Your task to perform on an android device: See recent photos Image 0: 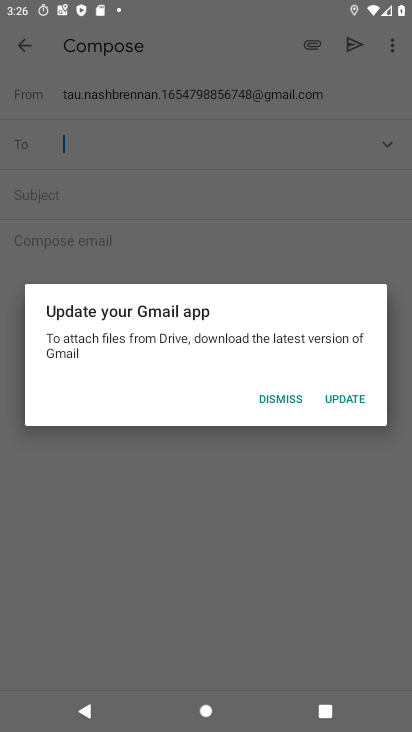
Step 0: press home button
Your task to perform on an android device: See recent photos Image 1: 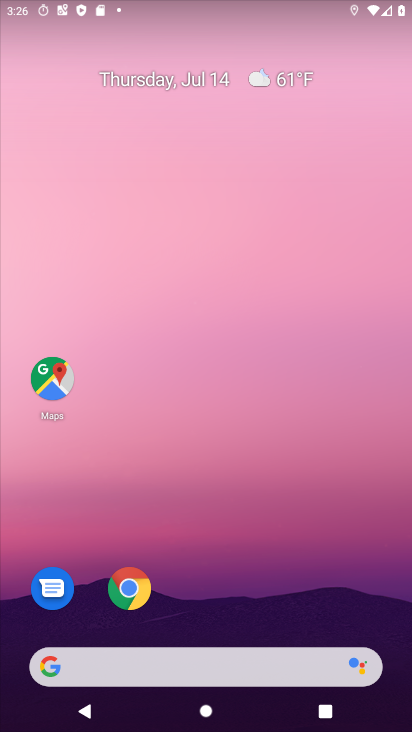
Step 1: drag from (180, 670) to (211, 188)
Your task to perform on an android device: See recent photos Image 2: 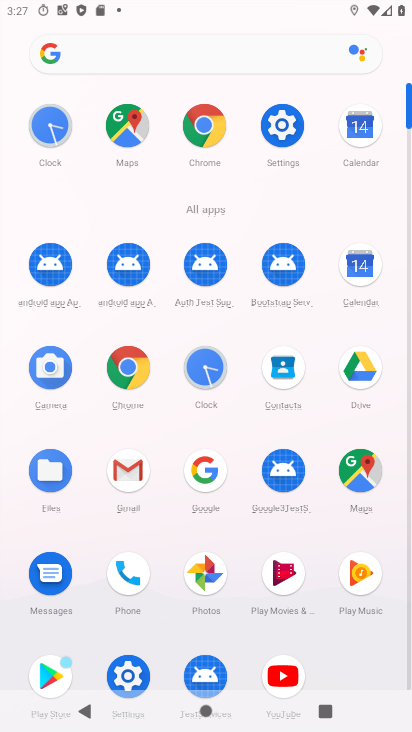
Step 2: click (204, 576)
Your task to perform on an android device: See recent photos Image 3: 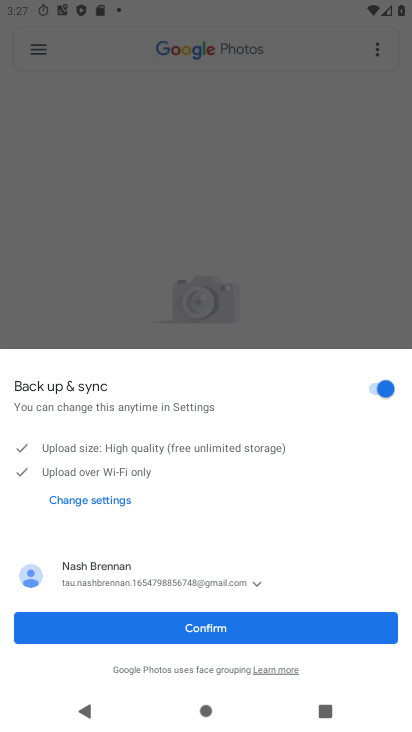
Step 3: click (203, 621)
Your task to perform on an android device: See recent photos Image 4: 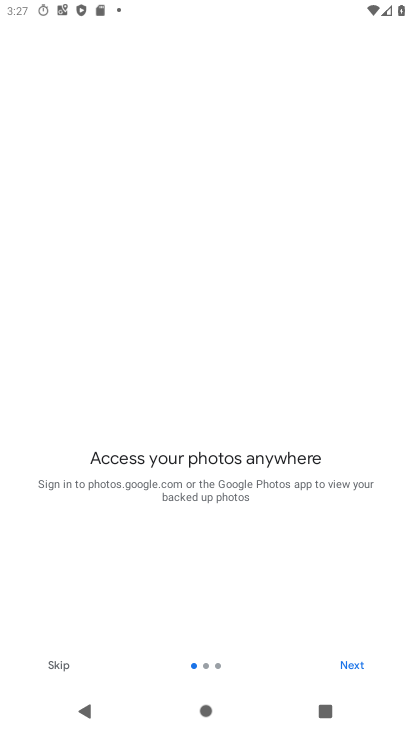
Step 4: click (341, 662)
Your task to perform on an android device: See recent photos Image 5: 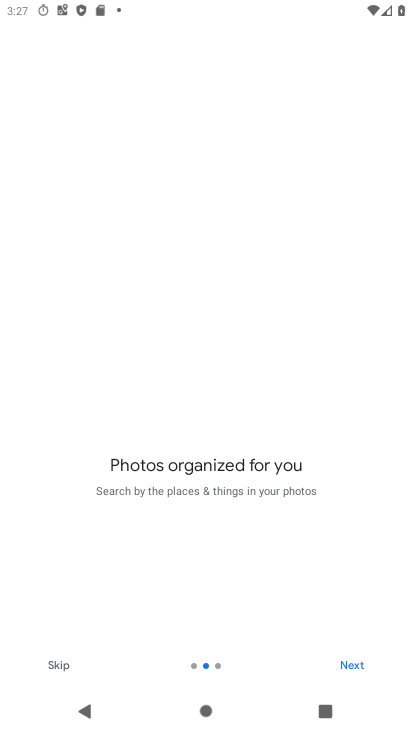
Step 5: click (354, 661)
Your task to perform on an android device: See recent photos Image 6: 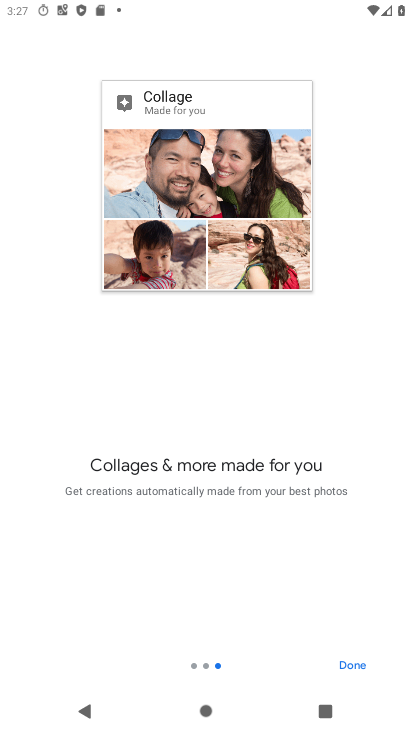
Step 6: click (357, 670)
Your task to perform on an android device: See recent photos Image 7: 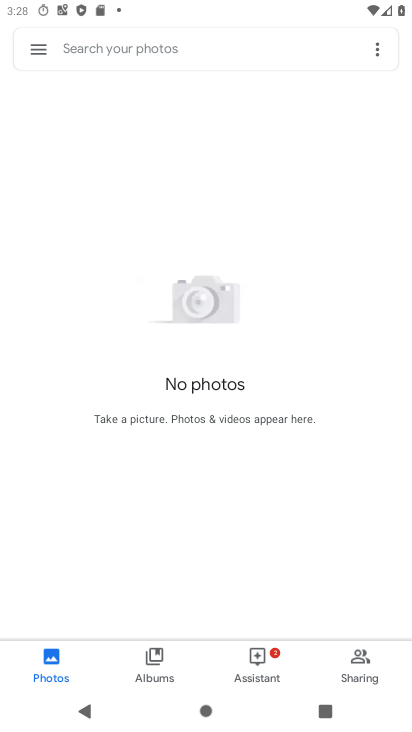
Step 7: click (160, 654)
Your task to perform on an android device: See recent photos Image 8: 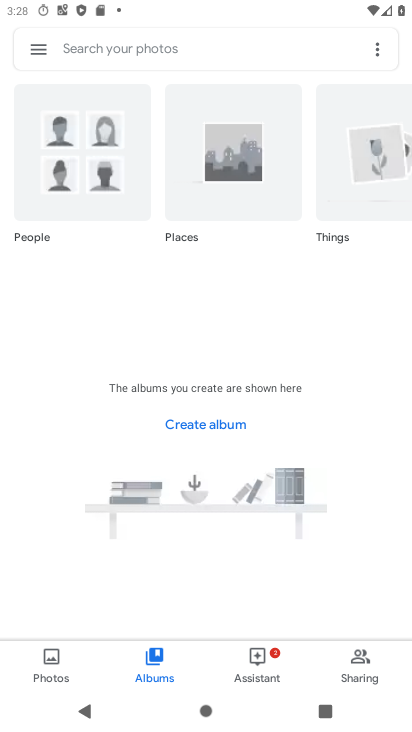
Step 8: click (253, 653)
Your task to perform on an android device: See recent photos Image 9: 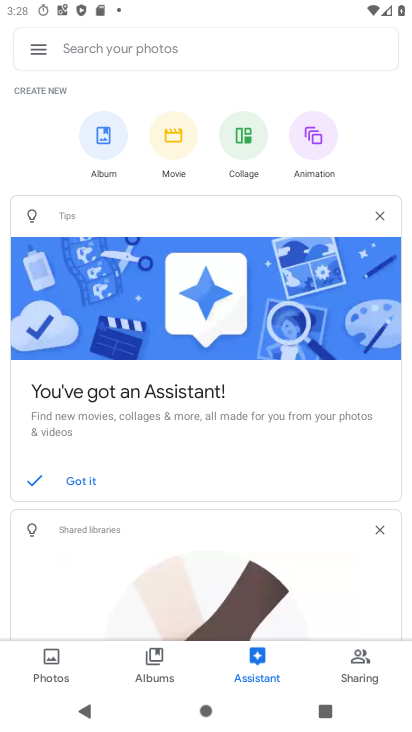
Step 9: task complete